Your task to perform on an android device: Add "razer naga" to the cart on amazon.com, then select checkout. Image 0: 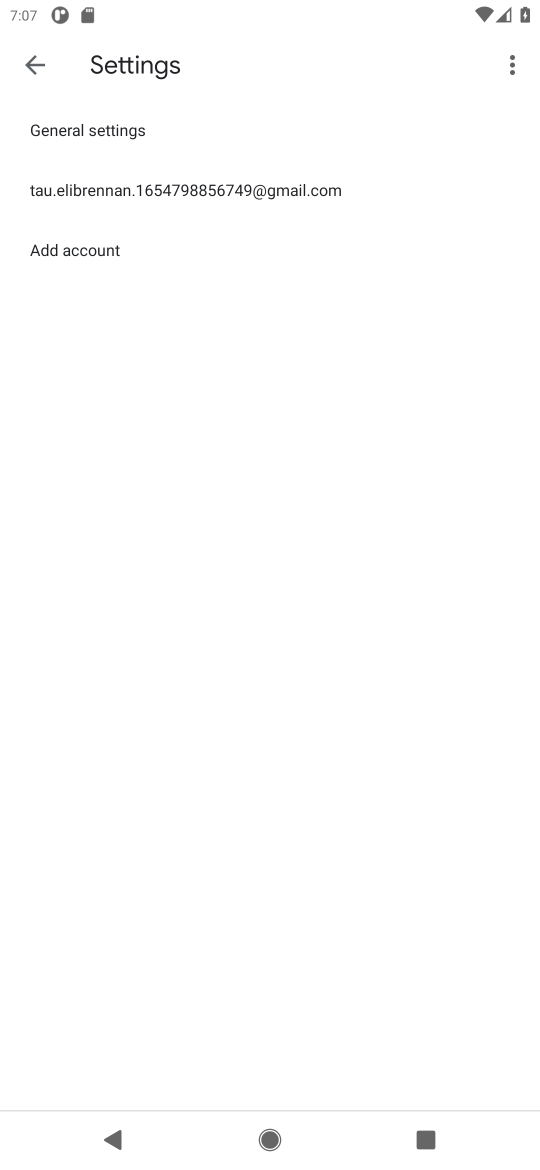
Step 0: press home button
Your task to perform on an android device: Add "razer naga" to the cart on amazon.com, then select checkout. Image 1: 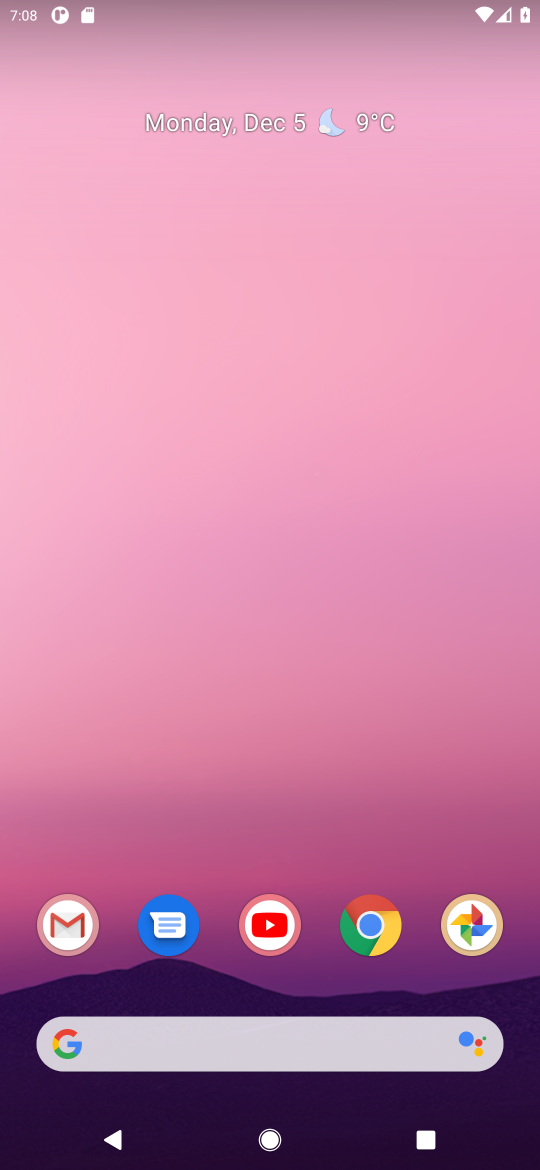
Step 1: click (371, 925)
Your task to perform on an android device: Add "razer naga" to the cart on amazon.com, then select checkout. Image 2: 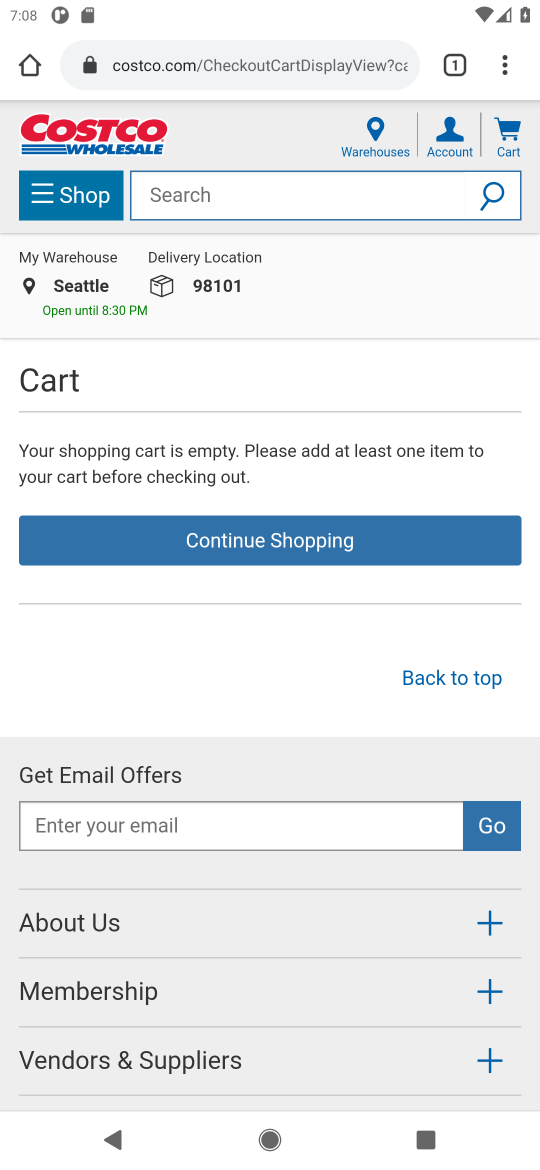
Step 2: click (197, 62)
Your task to perform on an android device: Add "razer naga" to the cart on amazon.com, then select checkout. Image 3: 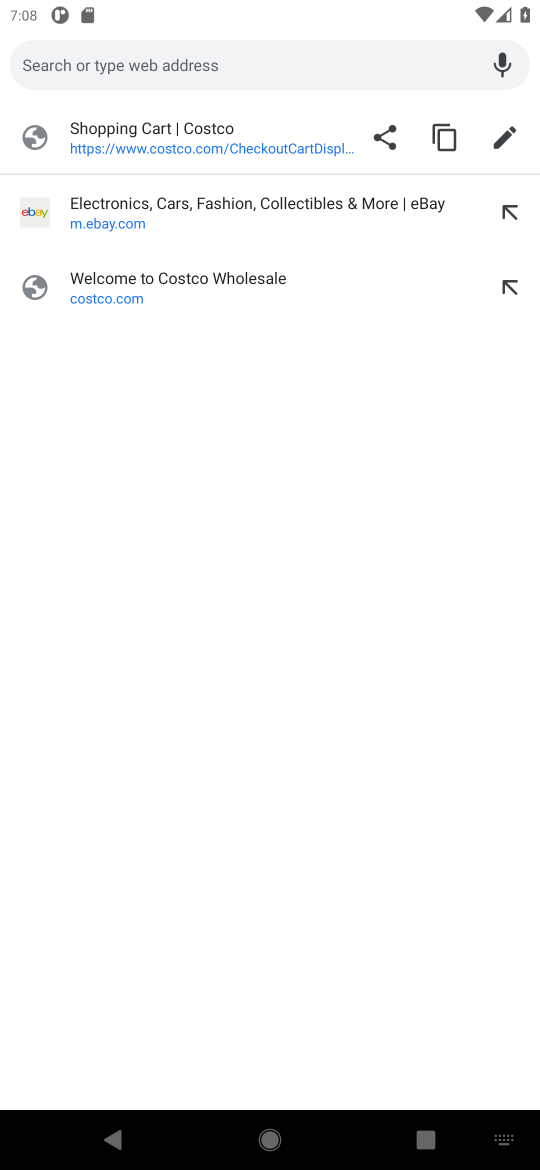
Step 3: type "amazon.com"
Your task to perform on an android device: Add "razer naga" to the cart on amazon.com, then select checkout. Image 4: 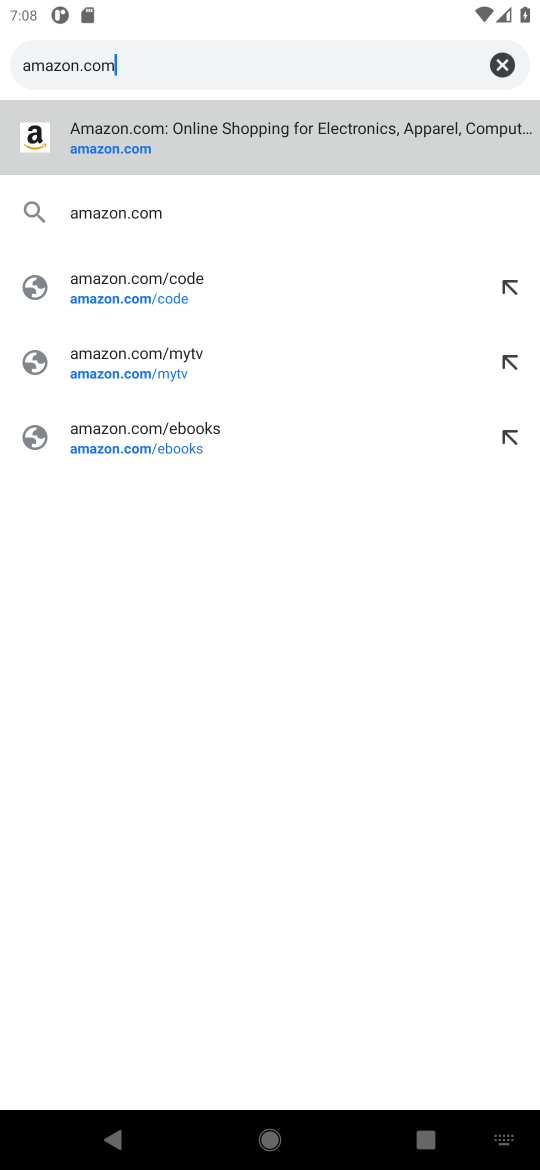
Step 4: click (126, 153)
Your task to perform on an android device: Add "razer naga" to the cart on amazon.com, then select checkout. Image 5: 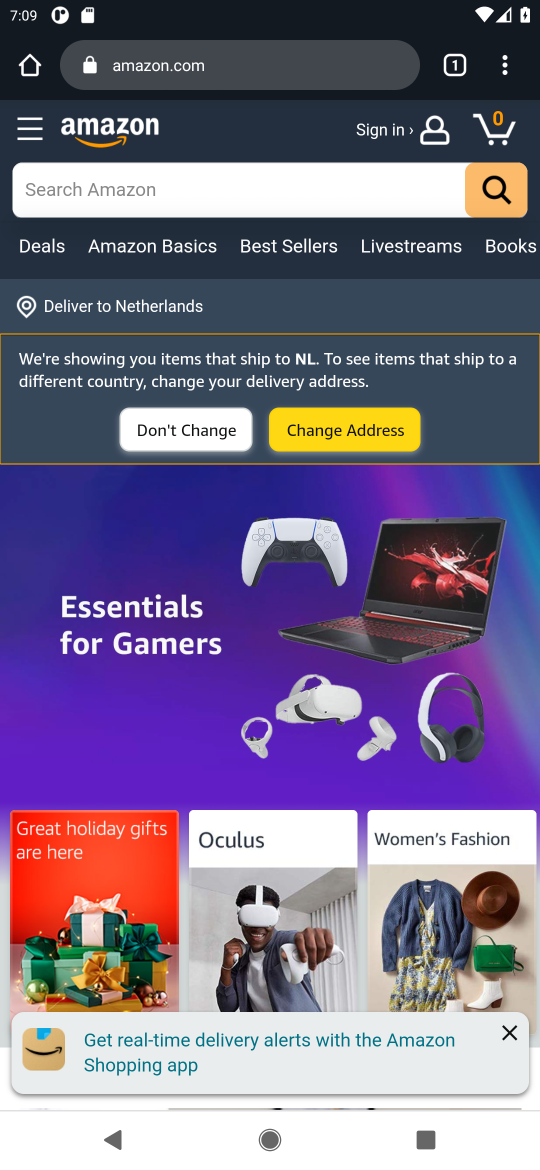
Step 5: click (114, 202)
Your task to perform on an android device: Add "razer naga" to the cart on amazon.com, then select checkout. Image 6: 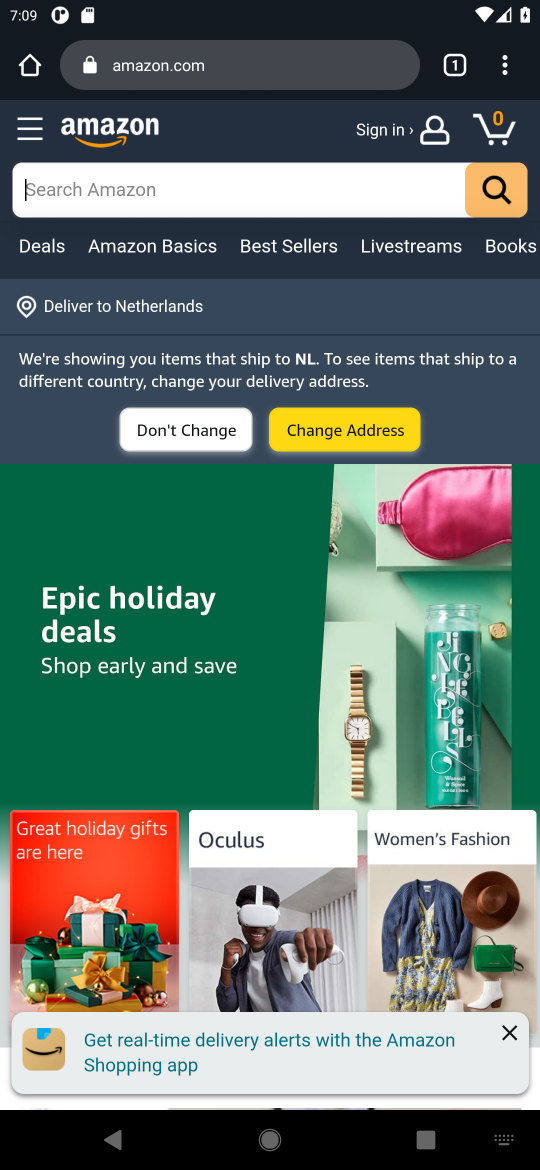
Step 6: type "razer naga"
Your task to perform on an android device: Add "razer naga" to the cart on amazon.com, then select checkout. Image 7: 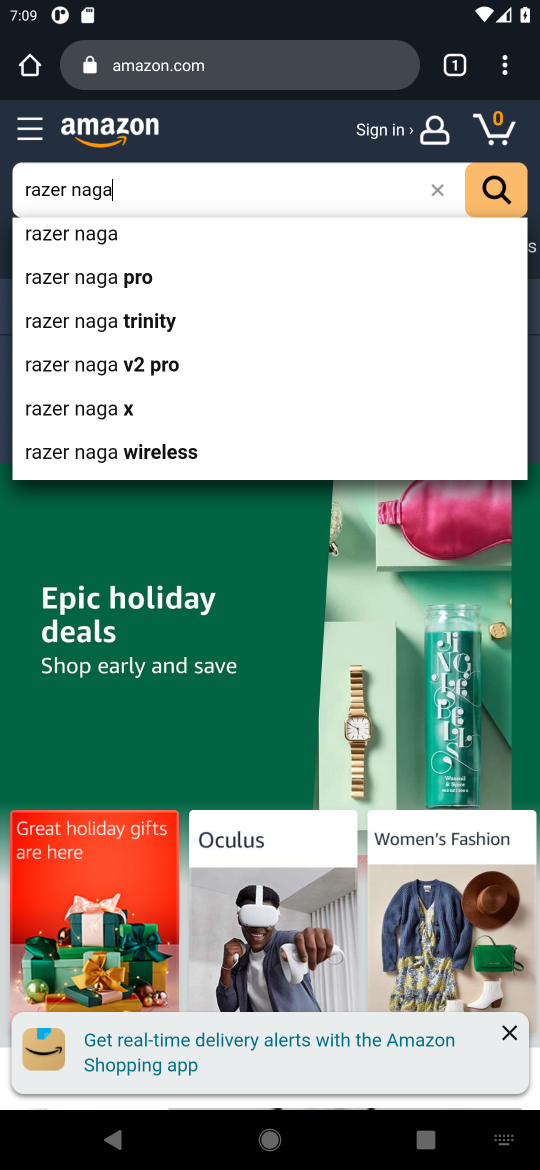
Step 7: click (60, 237)
Your task to perform on an android device: Add "razer naga" to the cart on amazon.com, then select checkout. Image 8: 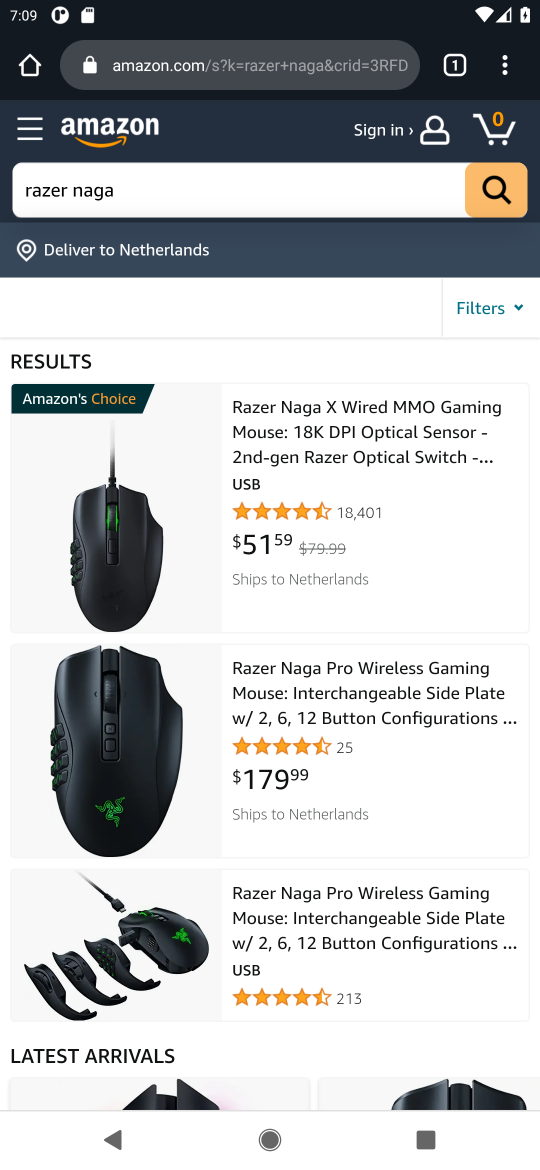
Step 8: click (288, 452)
Your task to perform on an android device: Add "razer naga" to the cart on amazon.com, then select checkout. Image 9: 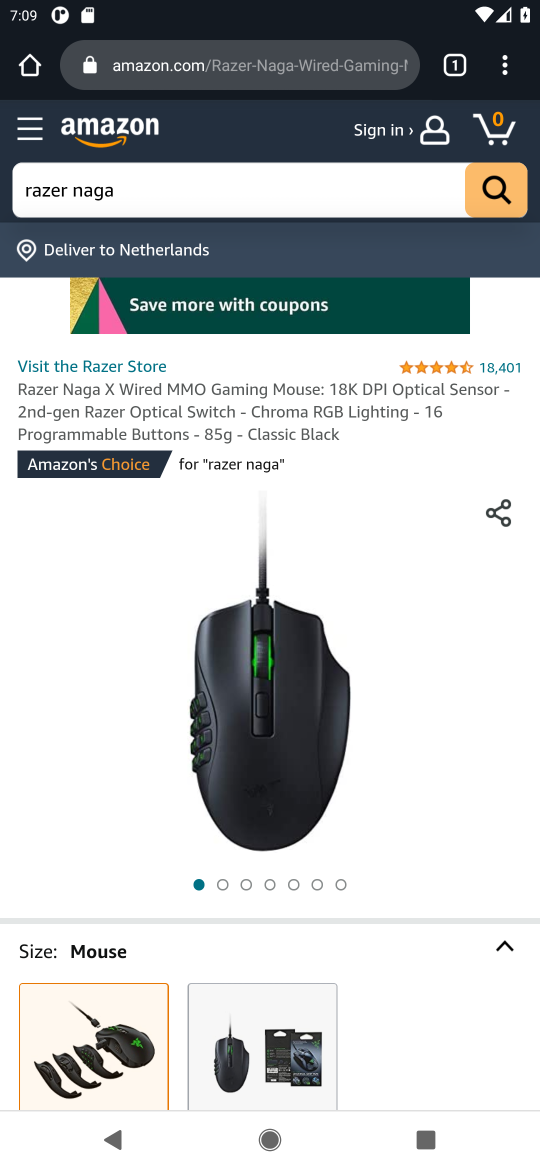
Step 9: drag from (363, 860) to (387, 403)
Your task to perform on an android device: Add "razer naga" to the cart on amazon.com, then select checkout. Image 10: 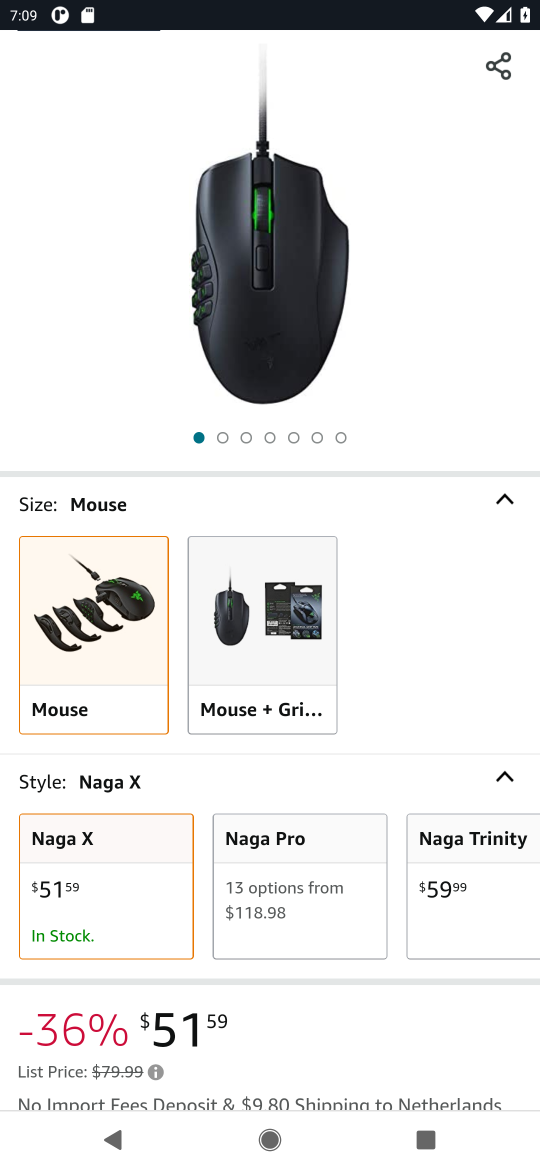
Step 10: drag from (371, 706) to (349, 404)
Your task to perform on an android device: Add "razer naga" to the cart on amazon.com, then select checkout. Image 11: 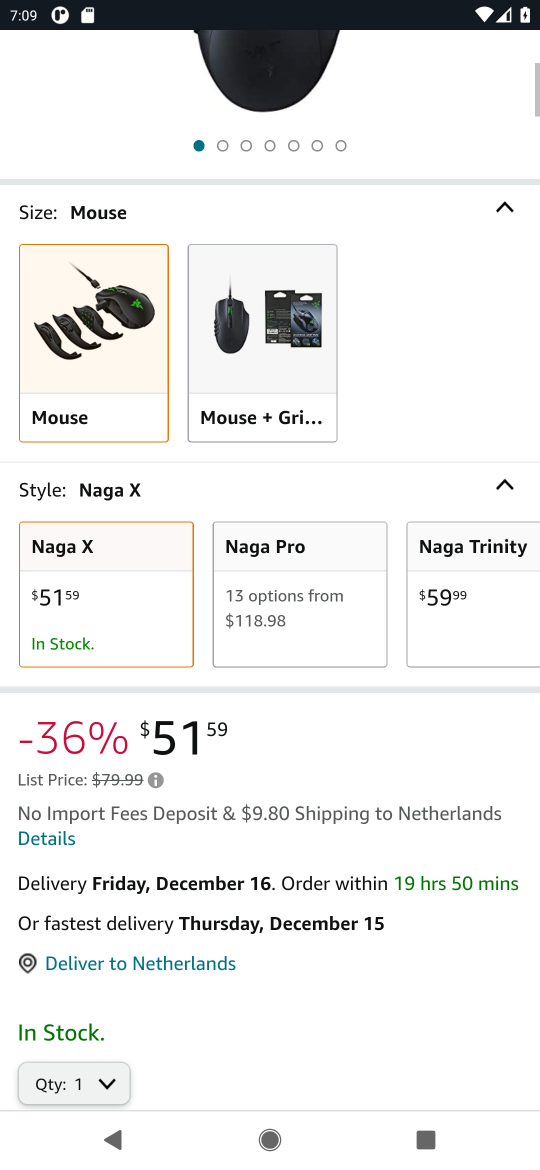
Step 11: drag from (379, 748) to (399, 462)
Your task to perform on an android device: Add "razer naga" to the cart on amazon.com, then select checkout. Image 12: 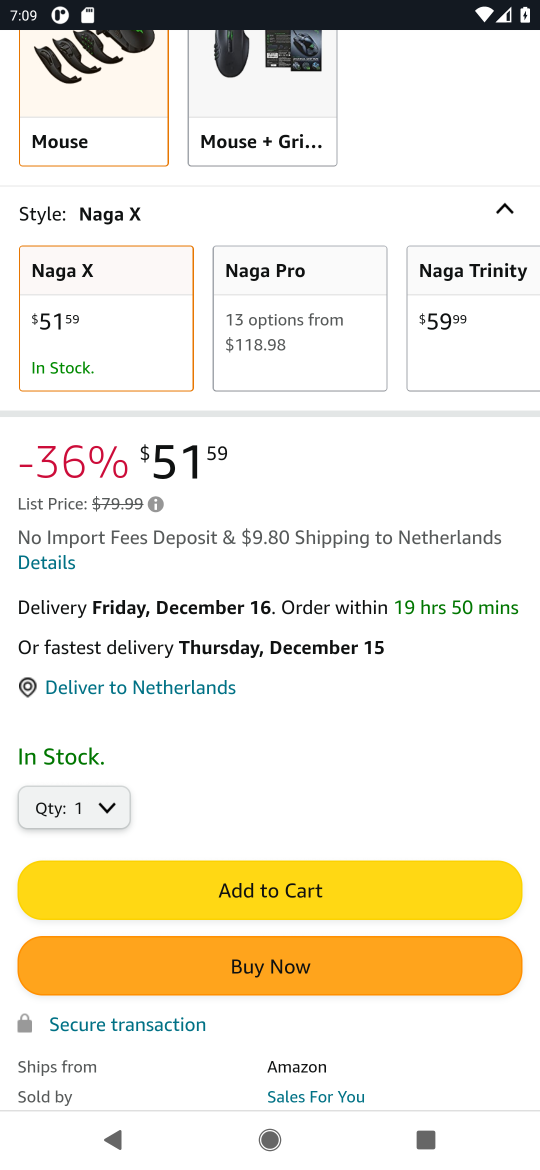
Step 12: click (242, 902)
Your task to perform on an android device: Add "razer naga" to the cart on amazon.com, then select checkout. Image 13: 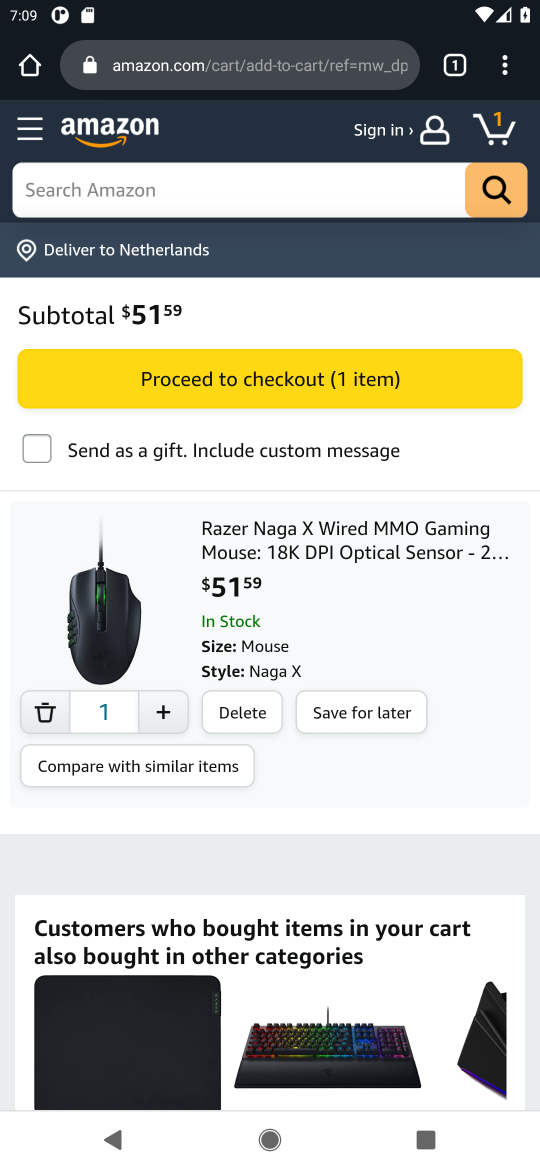
Step 13: click (209, 391)
Your task to perform on an android device: Add "razer naga" to the cart on amazon.com, then select checkout. Image 14: 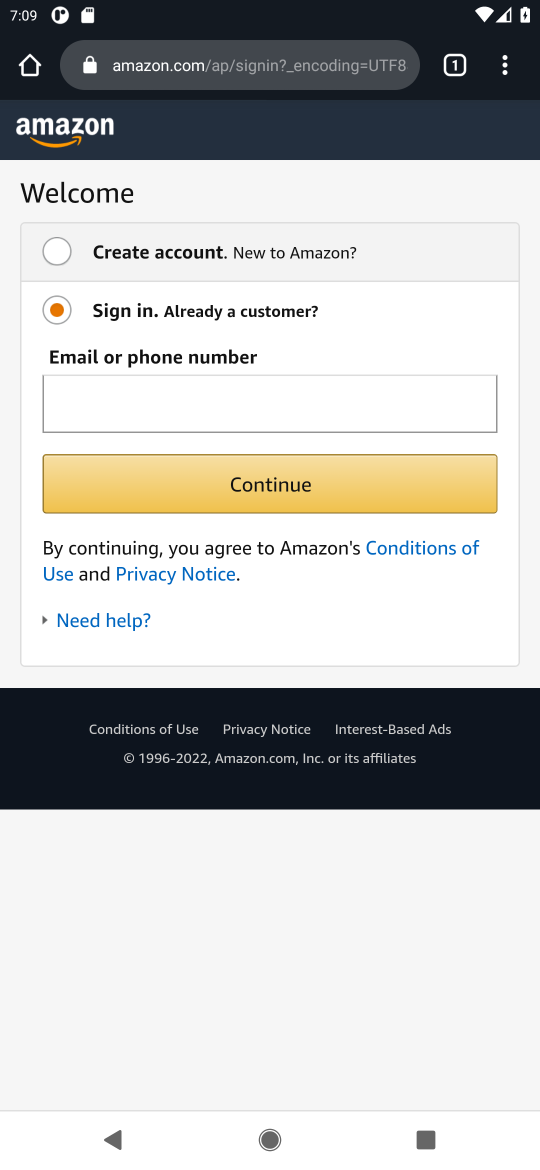
Step 14: task complete